Your task to perform on an android device: Go to display settings Image 0: 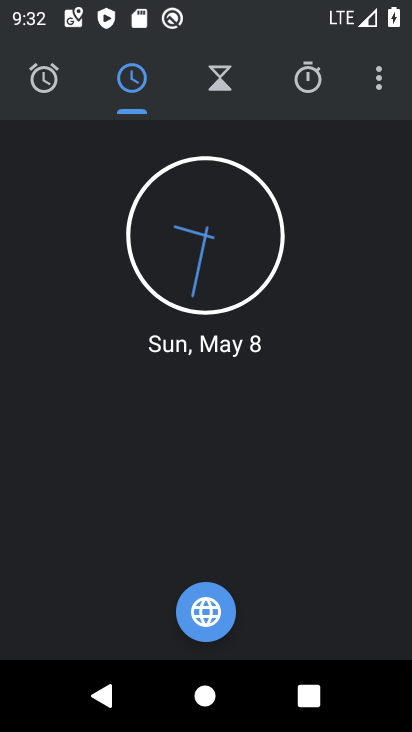
Step 0: press home button
Your task to perform on an android device: Go to display settings Image 1: 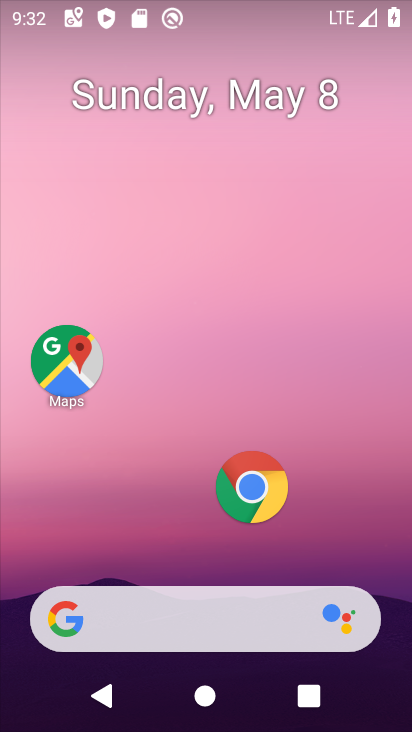
Step 1: drag from (116, 494) to (217, 33)
Your task to perform on an android device: Go to display settings Image 2: 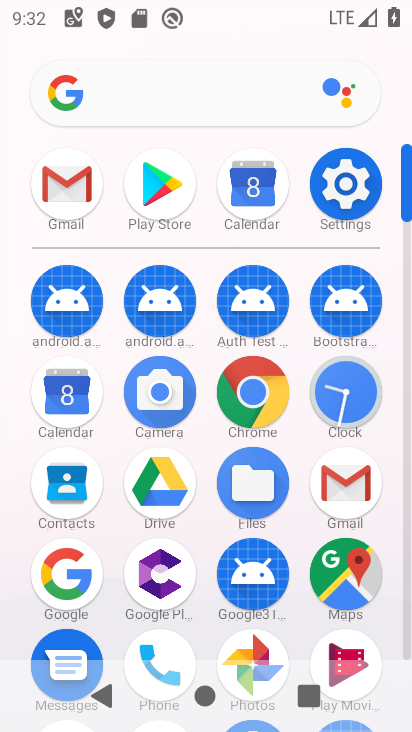
Step 2: click (333, 192)
Your task to perform on an android device: Go to display settings Image 3: 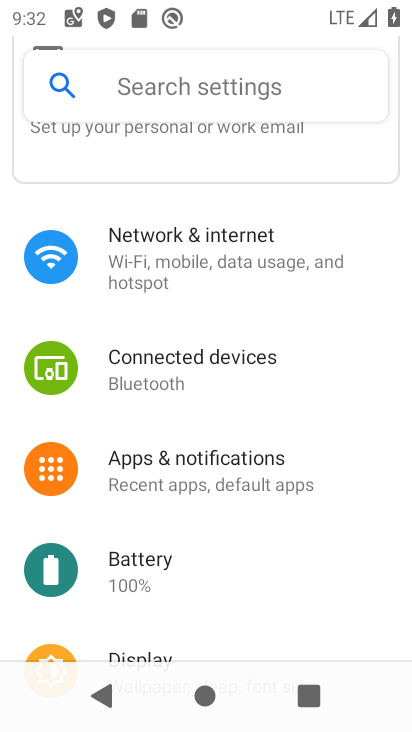
Step 3: drag from (225, 552) to (283, 227)
Your task to perform on an android device: Go to display settings Image 4: 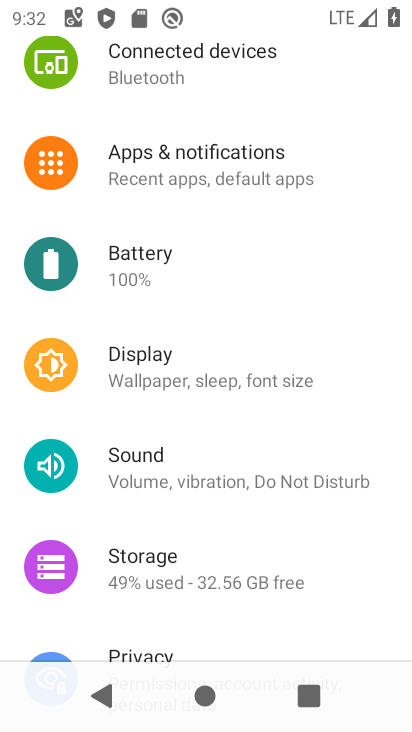
Step 4: click (226, 370)
Your task to perform on an android device: Go to display settings Image 5: 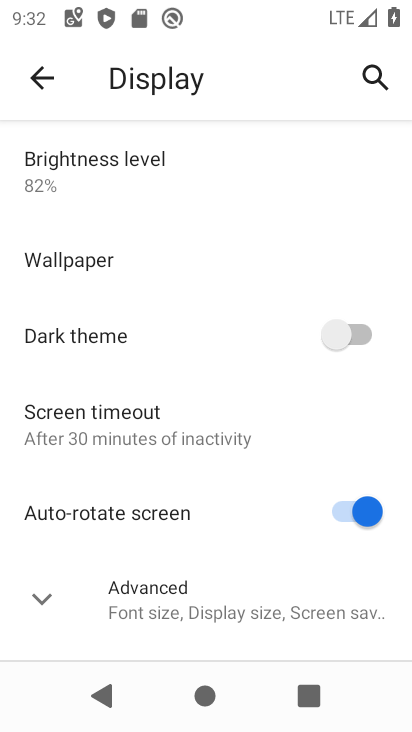
Step 5: click (42, 593)
Your task to perform on an android device: Go to display settings Image 6: 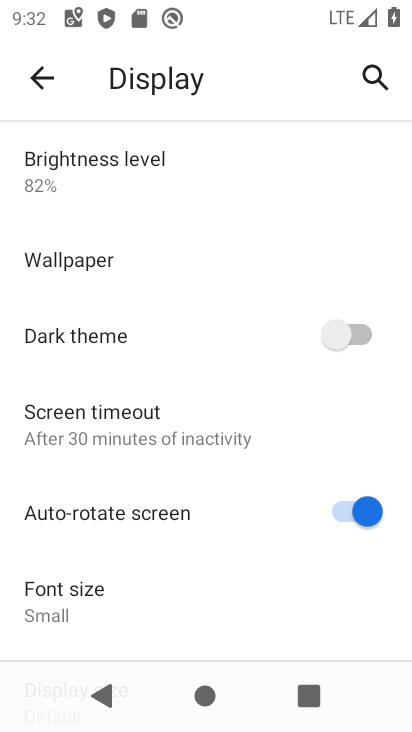
Step 6: task complete